Your task to perform on an android device: Search for pizza restaurants on Maps Image 0: 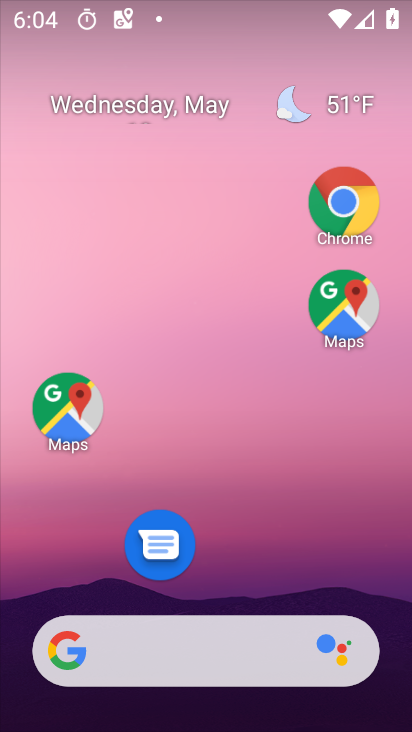
Step 0: drag from (234, 570) to (216, 166)
Your task to perform on an android device: Search for pizza restaurants on Maps Image 1: 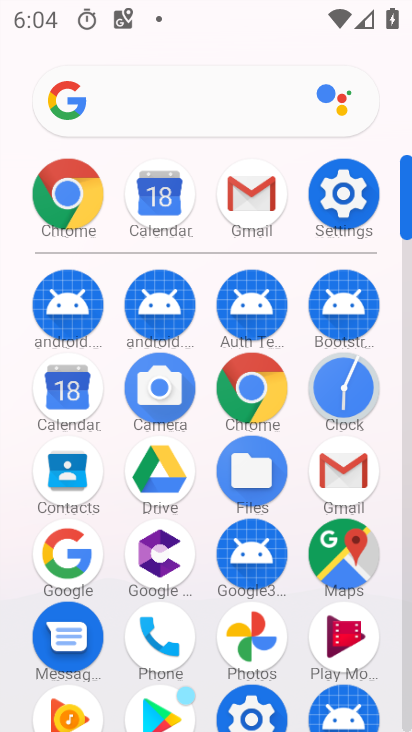
Step 1: click (341, 559)
Your task to perform on an android device: Search for pizza restaurants on Maps Image 2: 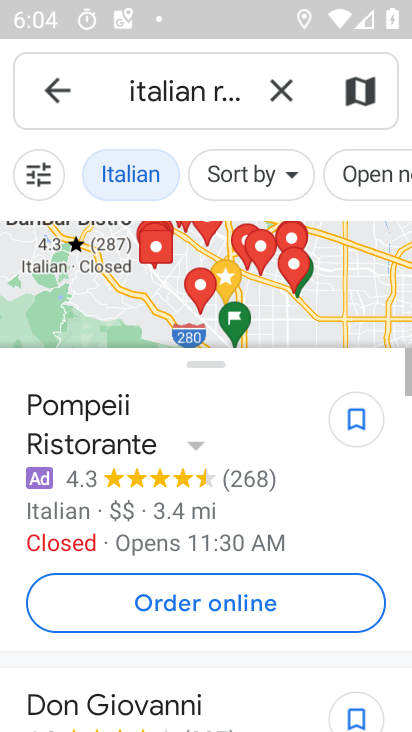
Step 2: click (271, 100)
Your task to perform on an android device: Search for pizza restaurants on Maps Image 3: 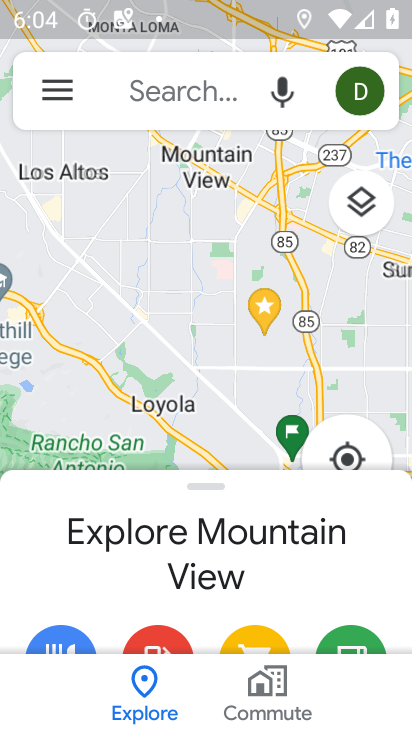
Step 3: click (193, 92)
Your task to perform on an android device: Search for pizza restaurants on Maps Image 4: 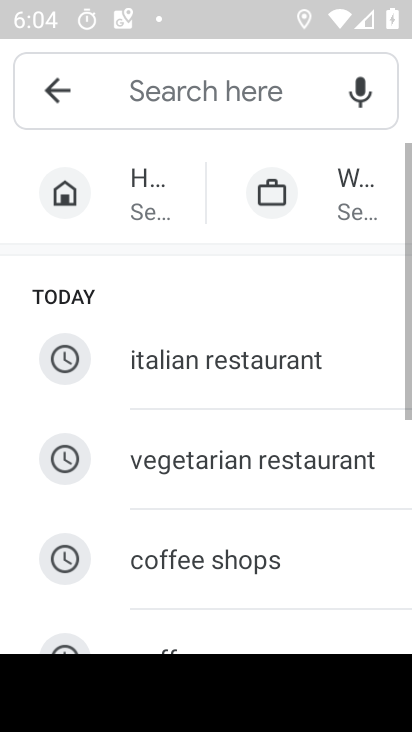
Step 4: drag from (217, 570) to (214, 178)
Your task to perform on an android device: Search for pizza restaurants on Maps Image 5: 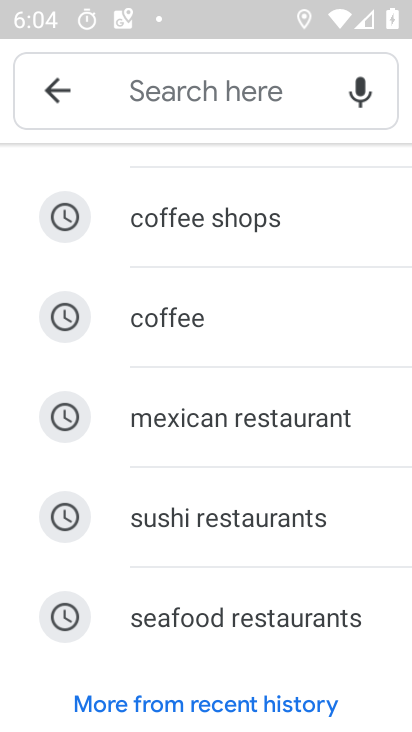
Step 5: click (213, 103)
Your task to perform on an android device: Search for pizza restaurants on Maps Image 6: 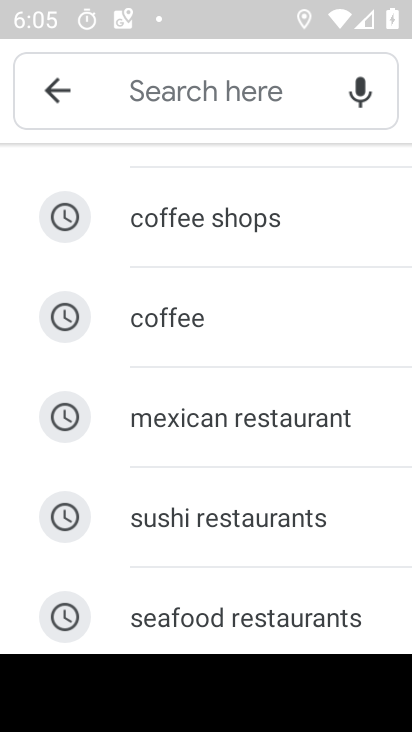
Step 6: type "pizza restaurants"
Your task to perform on an android device: Search for pizza restaurants on Maps Image 7: 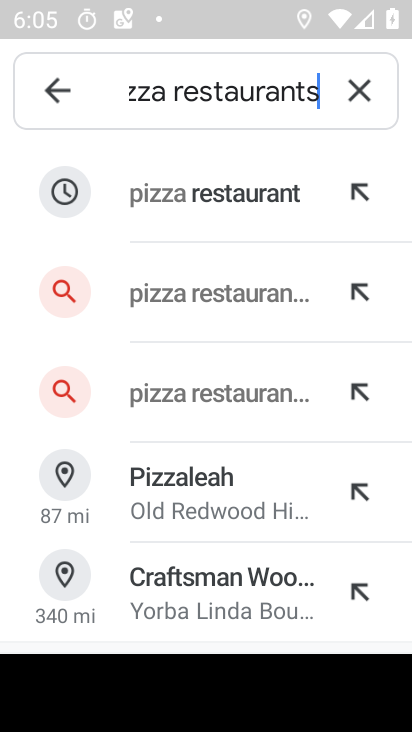
Step 7: click (243, 213)
Your task to perform on an android device: Search for pizza restaurants on Maps Image 8: 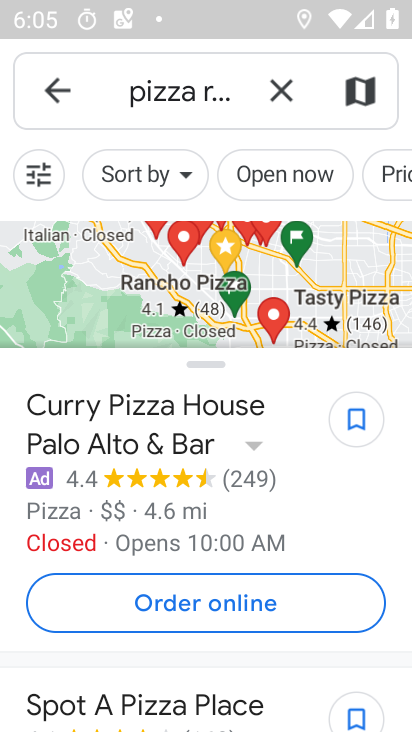
Step 8: task complete